Your task to perform on an android device: Open the map Image 0: 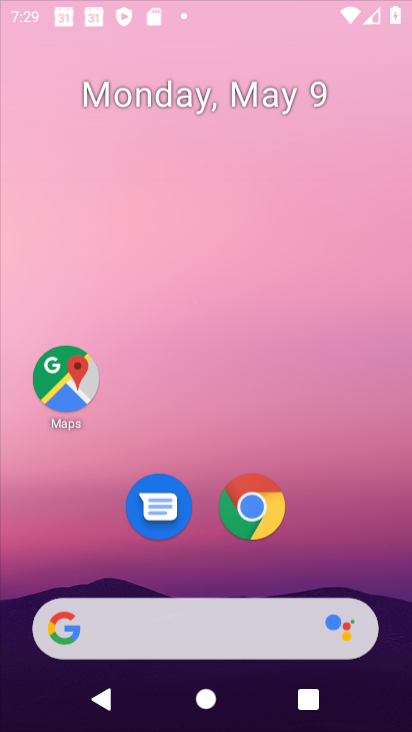
Step 0: drag from (224, 643) to (285, 228)
Your task to perform on an android device: Open the map Image 1: 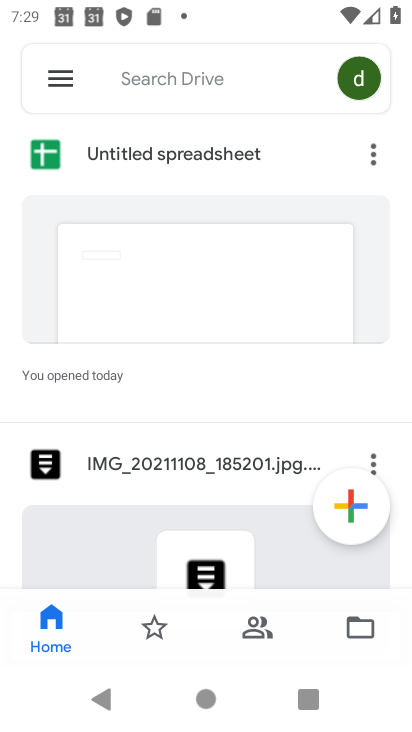
Step 1: press home button
Your task to perform on an android device: Open the map Image 2: 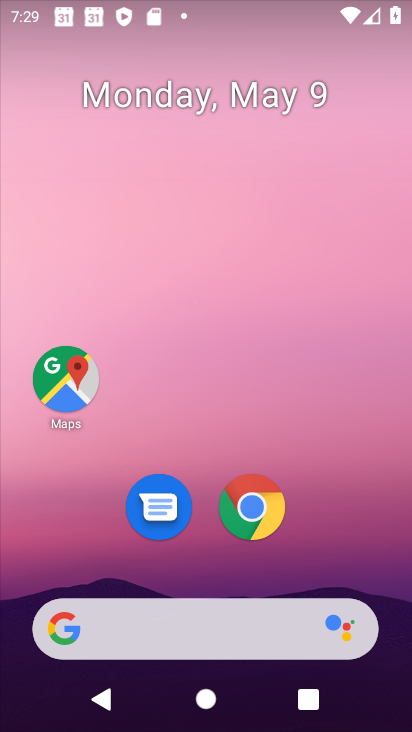
Step 2: drag from (269, 652) to (369, 163)
Your task to perform on an android device: Open the map Image 3: 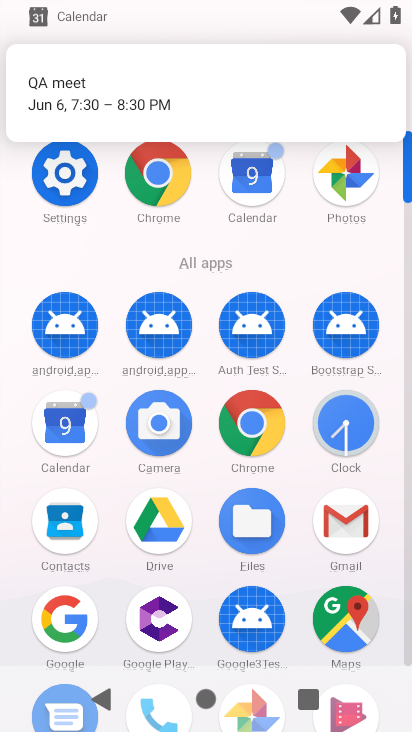
Step 3: click (341, 627)
Your task to perform on an android device: Open the map Image 4: 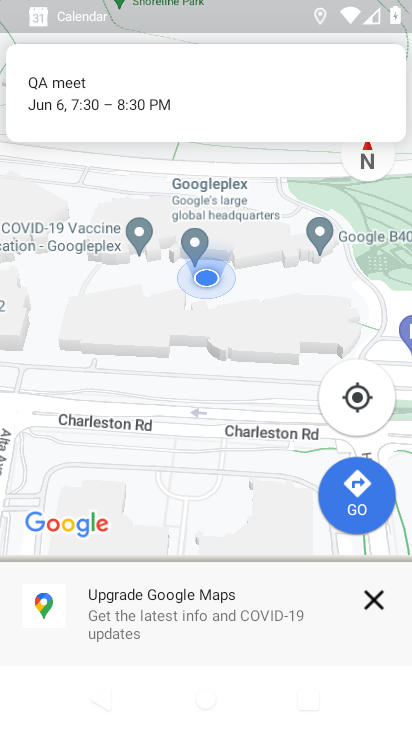
Step 4: click (356, 403)
Your task to perform on an android device: Open the map Image 5: 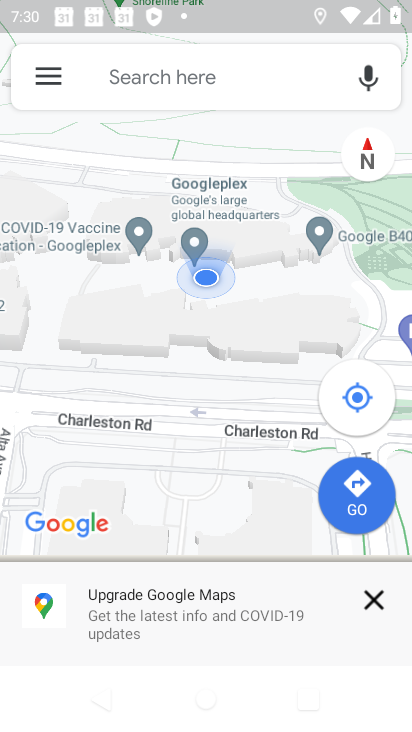
Step 5: click (379, 598)
Your task to perform on an android device: Open the map Image 6: 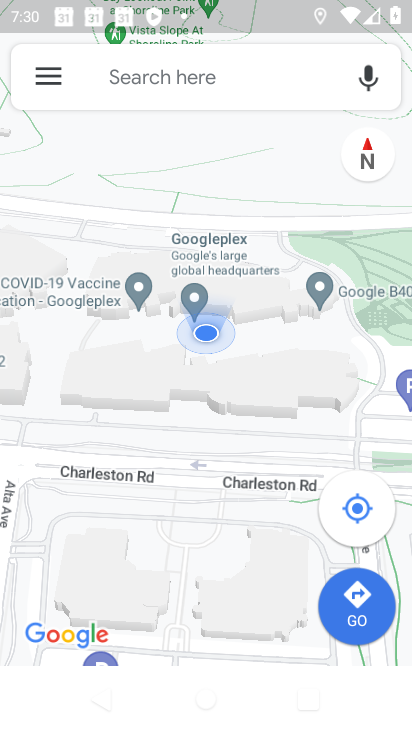
Step 6: task complete